Your task to perform on an android device: turn off sleep mode Image 0: 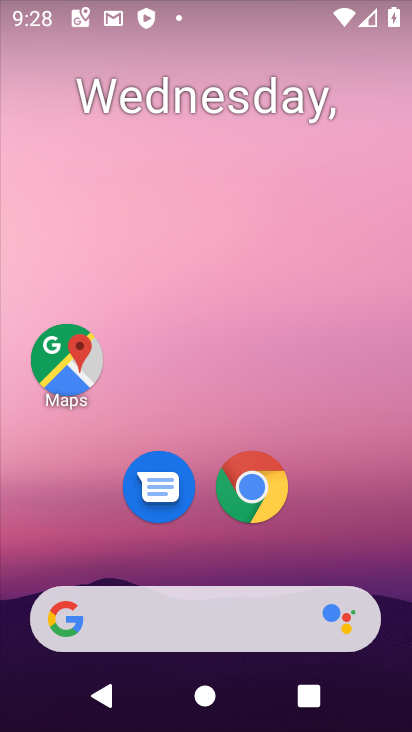
Step 0: drag from (84, 543) to (203, 25)
Your task to perform on an android device: turn off sleep mode Image 1: 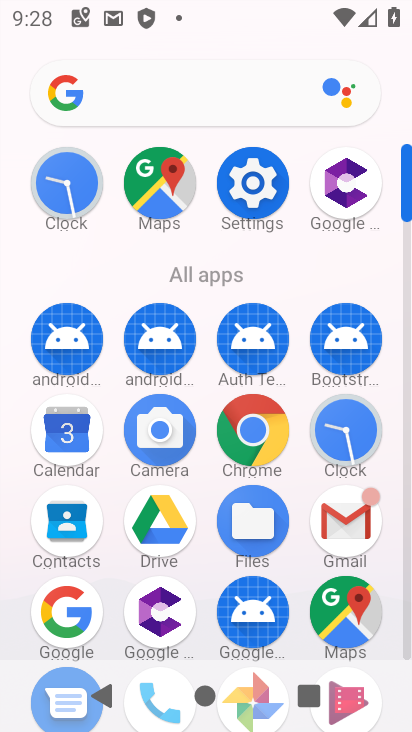
Step 1: click (247, 198)
Your task to perform on an android device: turn off sleep mode Image 2: 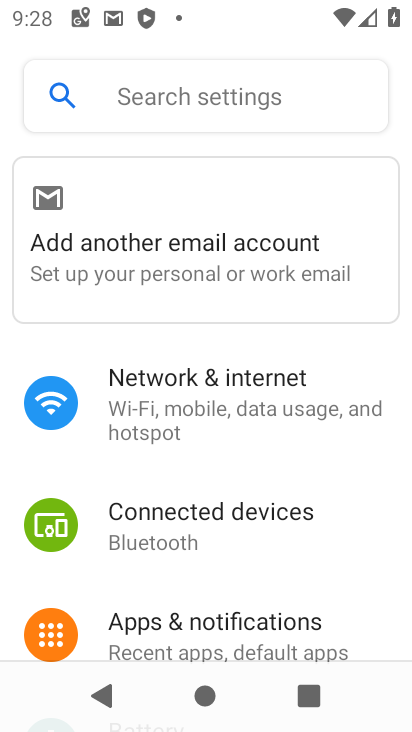
Step 2: click (188, 102)
Your task to perform on an android device: turn off sleep mode Image 3: 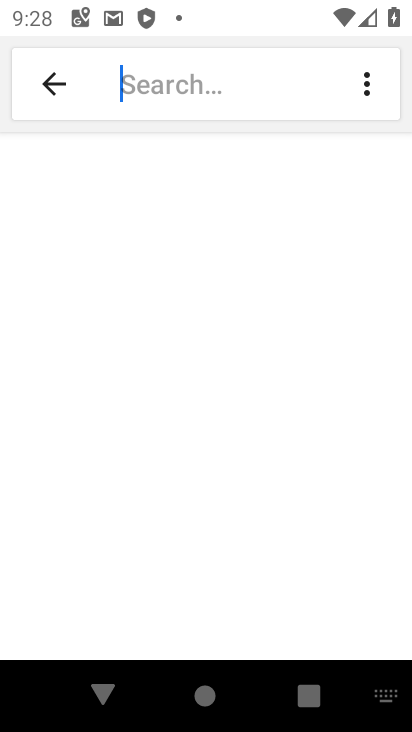
Step 3: type "sleep mode"
Your task to perform on an android device: turn off sleep mode Image 4: 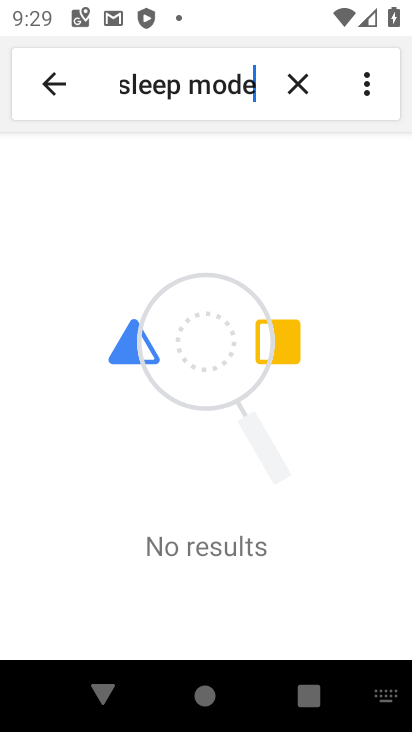
Step 4: task complete